Your task to perform on an android device: make emails show in primary in the gmail app Image 0: 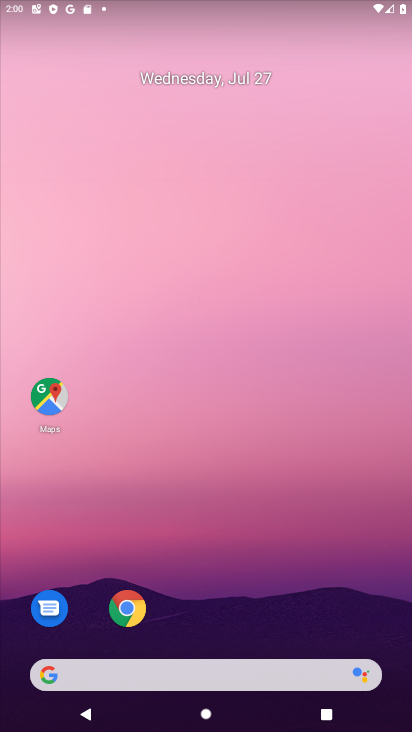
Step 0: drag from (54, 650) to (228, 46)
Your task to perform on an android device: make emails show in primary in the gmail app Image 1: 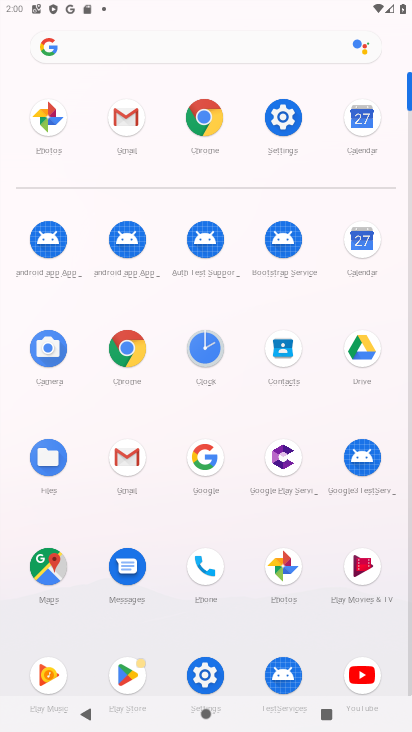
Step 1: click (132, 459)
Your task to perform on an android device: make emails show in primary in the gmail app Image 2: 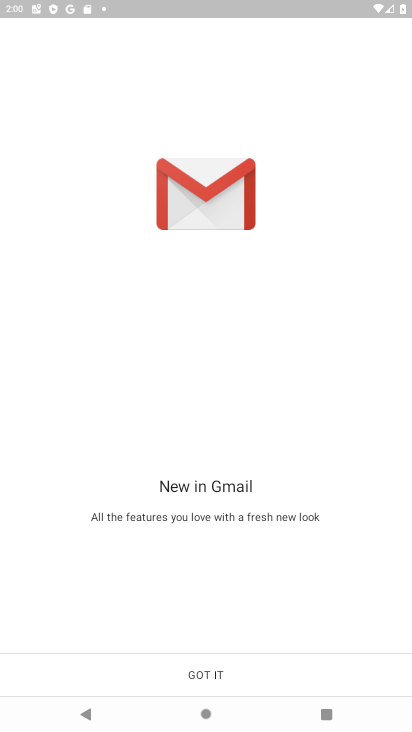
Step 2: click (206, 669)
Your task to perform on an android device: make emails show in primary in the gmail app Image 3: 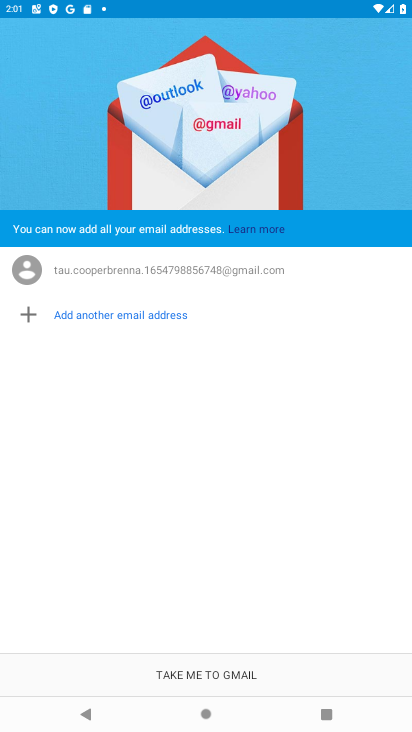
Step 3: click (206, 668)
Your task to perform on an android device: make emails show in primary in the gmail app Image 4: 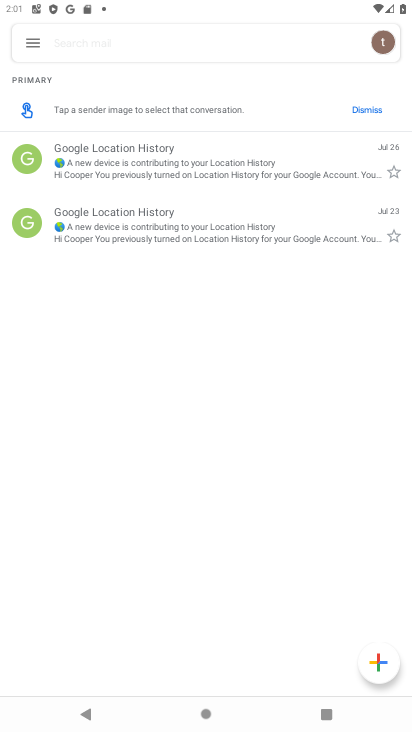
Step 4: click (180, 671)
Your task to perform on an android device: make emails show in primary in the gmail app Image 5: 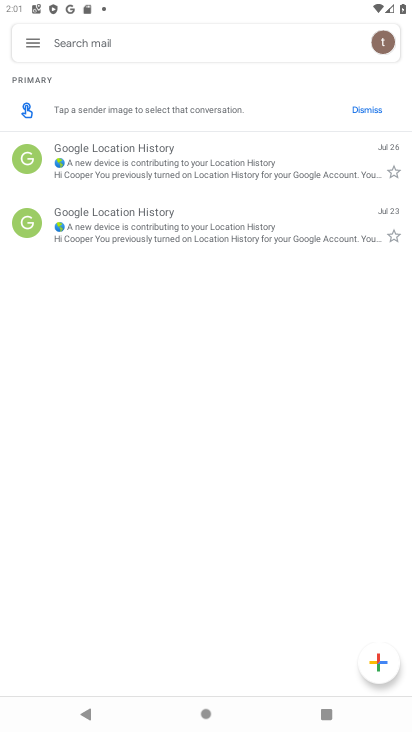
Step 5: task complete